Your task to perform on an android device: delete a single message in the gmail app Image 0: 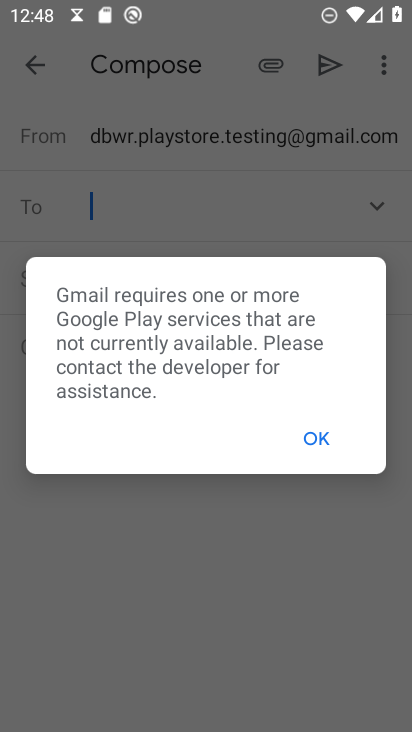
Step 0: press home button
Your task to perform on an android device: delete a single message in the gmail app Image 1: 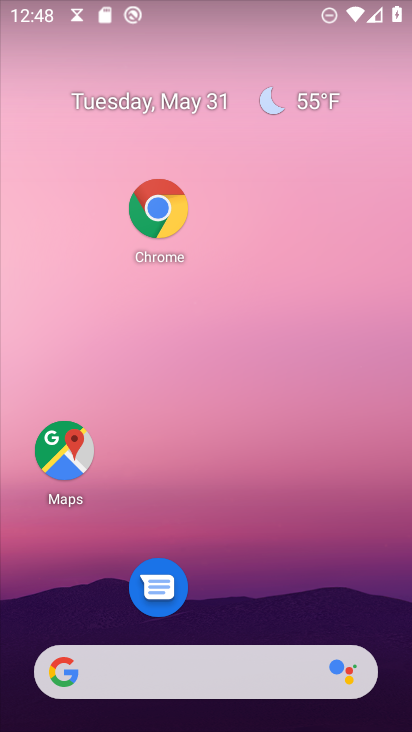
Step 1: drag from (242, 595) to (233, 193)
Your task to perform on an android device: delete a single message in the gmail app Image 2: 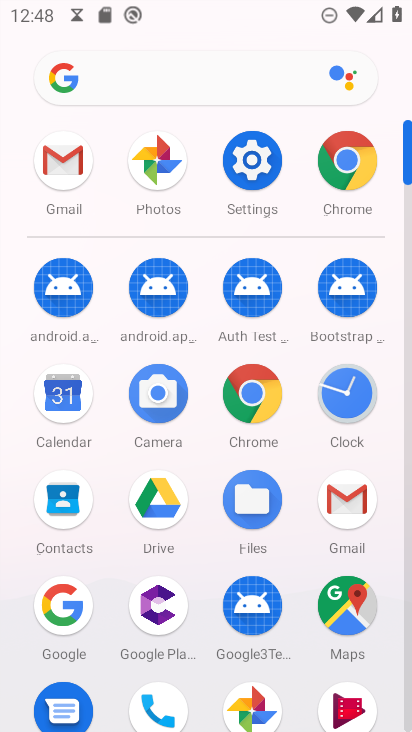
Step 2: click (369, 505)
Your task to perform on an android device: delete a single message in the gmail app Image 3: 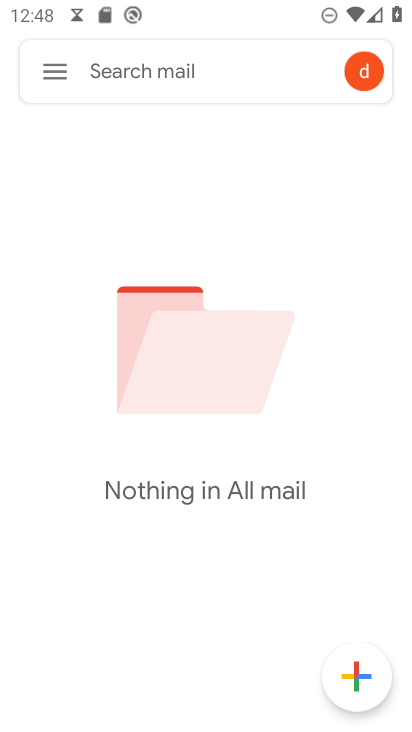
Step 3: click (52, 77)
Your task to perform on an android device: delete a single message in the gmail app Image 4: 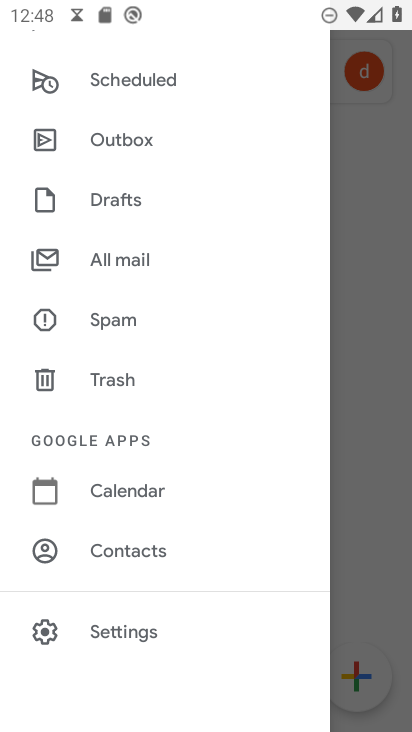
Step 4: drag from (97, 146) to (131, 664)
Your task to perform on an android device: delete a single message in the gmail app Image 5: 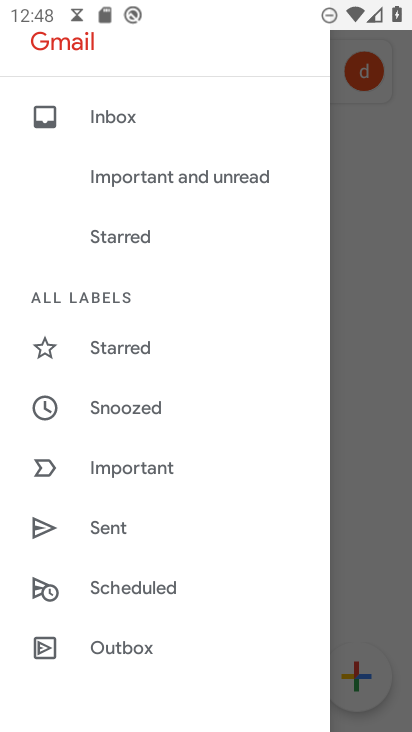
Step 5: click (112, 106)
Your task to perform on an android device: delete a single message in the gmail app Image 6: 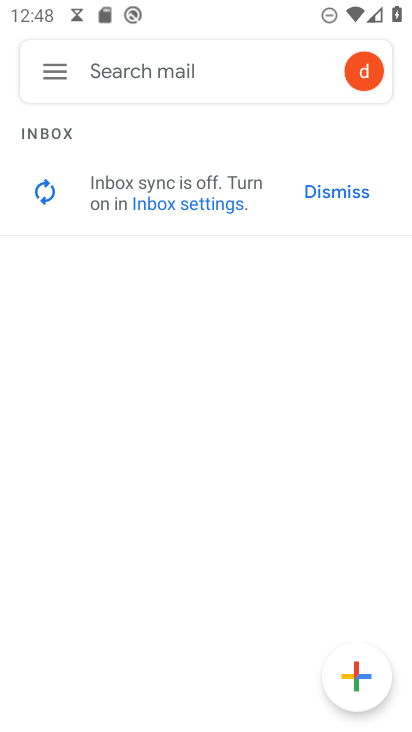
Step 6: click (313, 191)
Your task to perform on an android device: delete a single message in the gmail app Image 7: 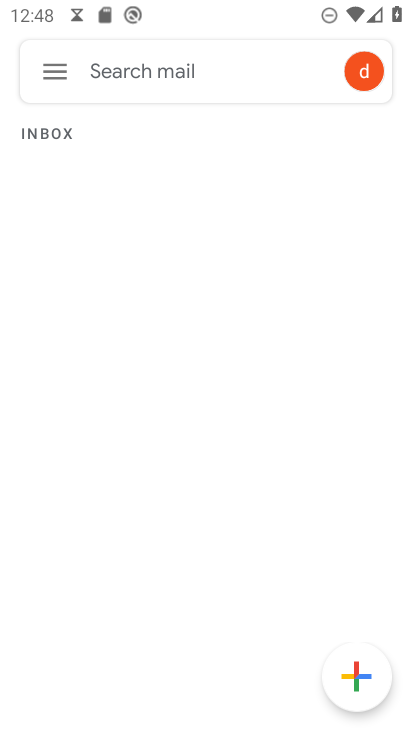
Step 7: task complete